Your task to perform on an android device: find photos in the google photos app Image 0: 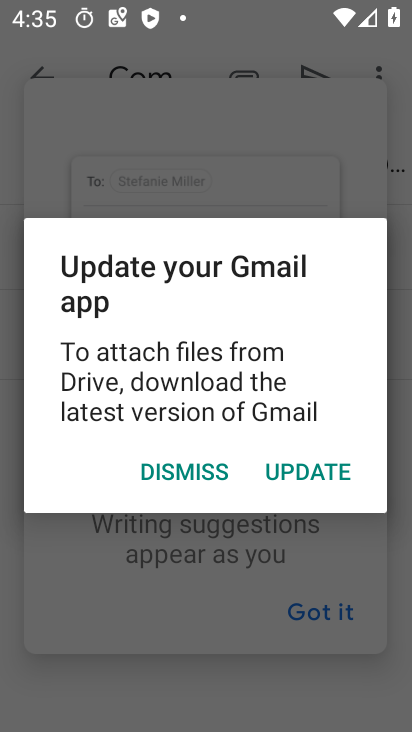
Step 0: press home button
Your task to perform on an android device: find photos in the google photos app Image 1: 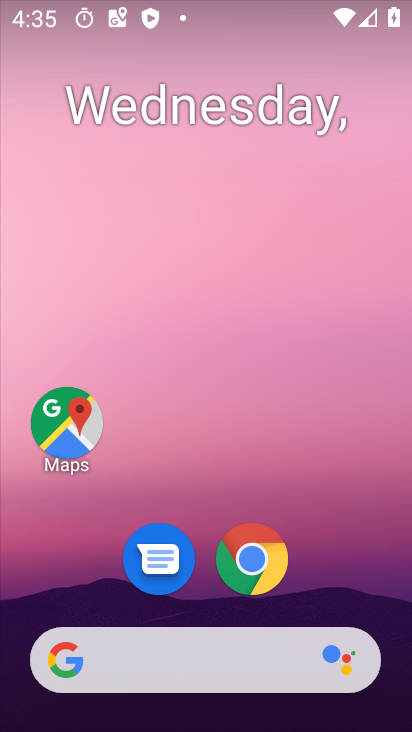
Step 1: drag from (327, 291) to (294, 81)
Your task to perform on an android device: find photos in the google photos app Image 2: 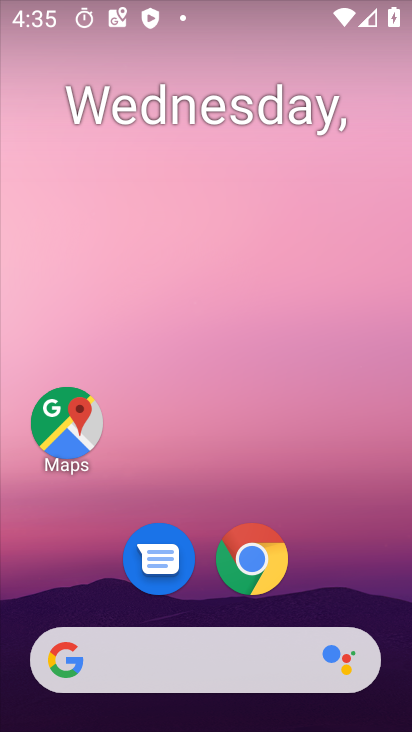
Step 2: drag from (337, 542) to (231, 52)
Your task to perform on an android device: find photos in the google photos app Image 3: 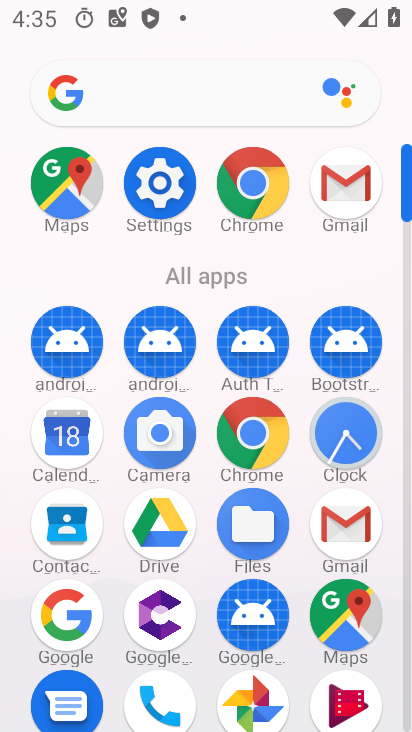
Step 3: click (260, 710)
Your task to perform on an android device: find photos in the google photos app Image 4: 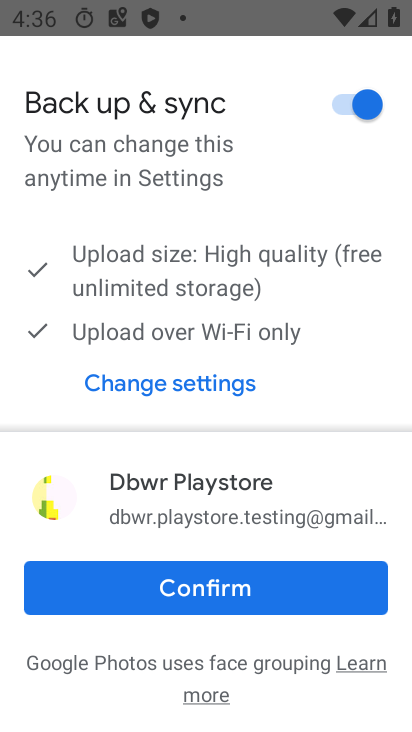
Step 4: click (284, 584)
Your task to perform on an android device: find photos in the google photos app Image 5: 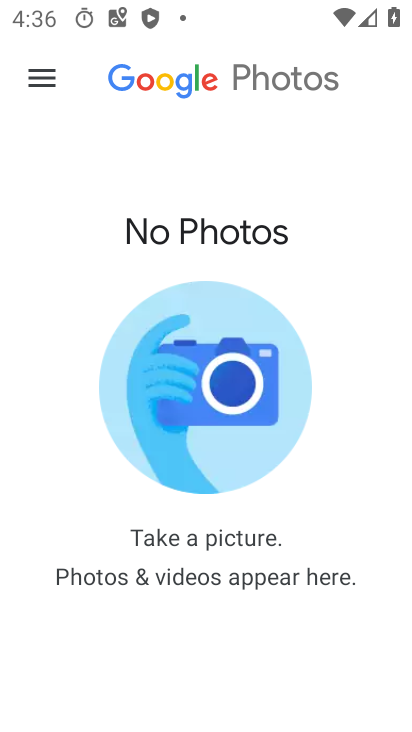
Step 5: click (37, 87)
Your task to perform on an android device: find photos in the google photos app Image 6: 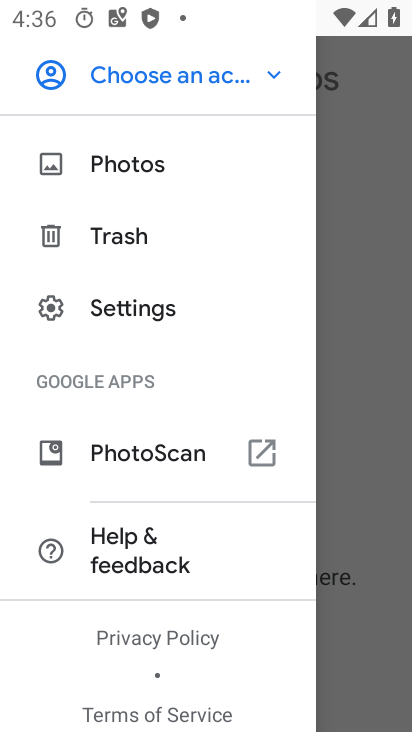
Step 6: click (129, 174)
Your task to perform on an android device: find photos in the google photos app Image 7: 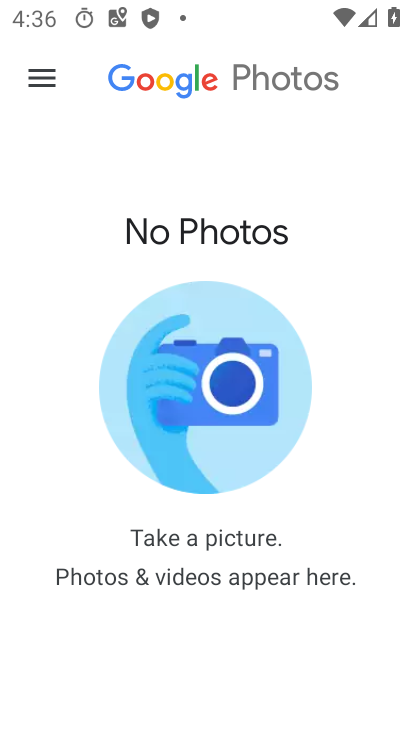
Step 7: task complete